Your task to perform on an android device: Open maps Image 0: 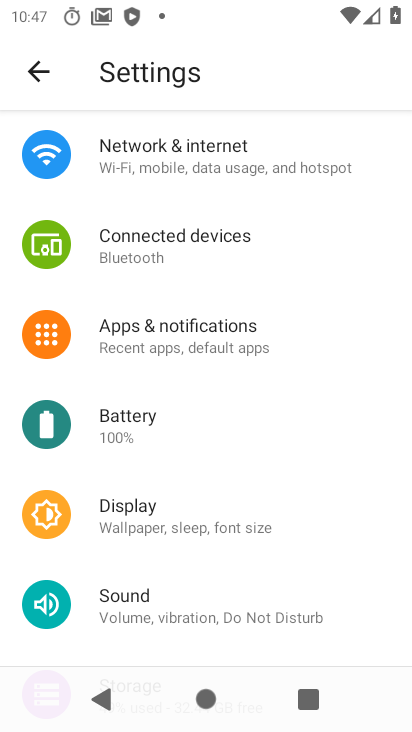
Step 0: press home button
Your task to perform on an android device: Open maps Image 1: 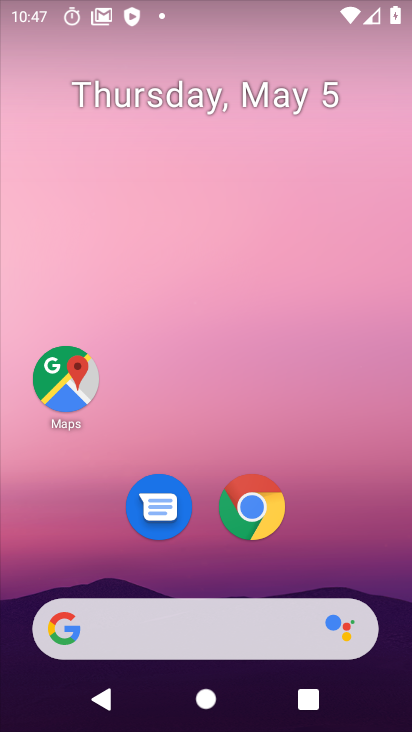
Step 1: click (64, 383)
Your task to perform on an android device: Open maps Image 2: 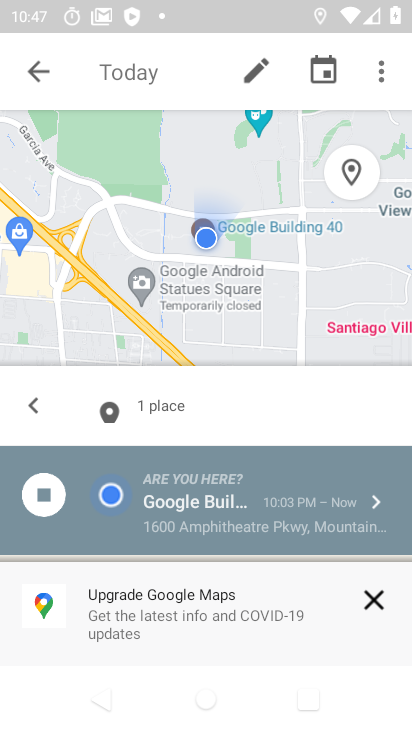
Step 2: click (42, 75)
Your task to perform on an android device: Open maps Image 3: 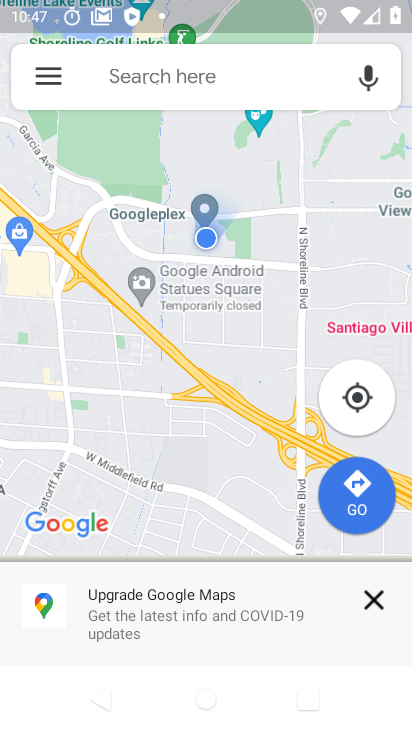
Step 3: task complete